Your task to perform on an android device: Open my contact list Image 0: 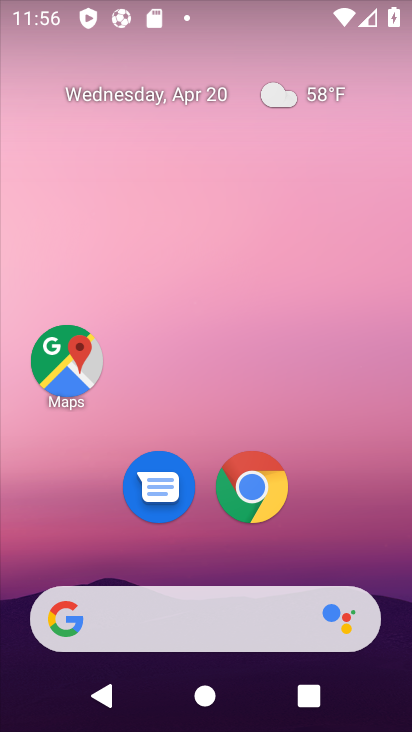
Step 0: drag from (392, 500) to (359, 4)
Your task to perform on an android device: Open my contact list Image 1: 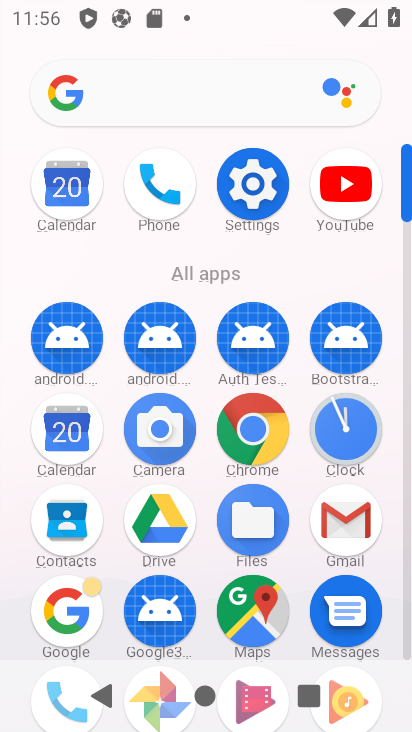
Step 1: click (64, 527)
Your task to perform on an android device: Open my contact list Image 2: 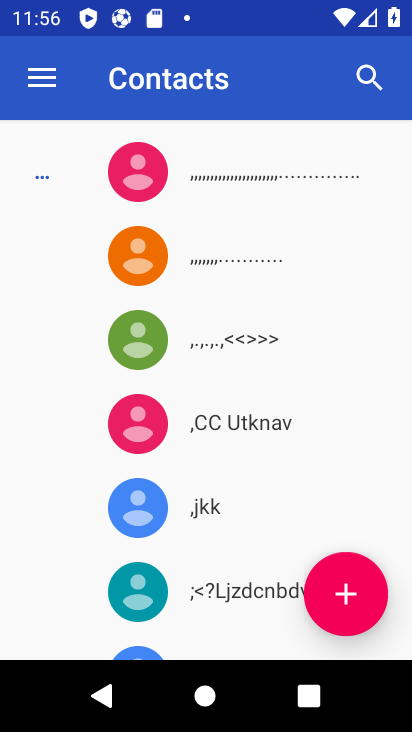
Step 2: task complete